Your task to perform on an android device: turn on wifi Image 0: 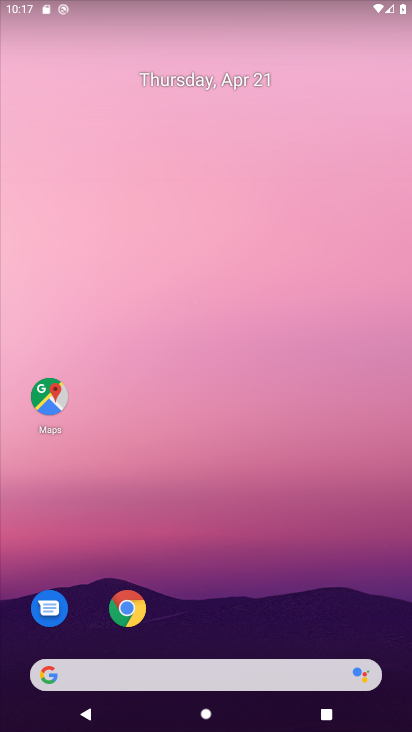
Step 0: drag from (274, 551) to (289, 133)
Your task to perform on an android device: turn on wifi Image 1: 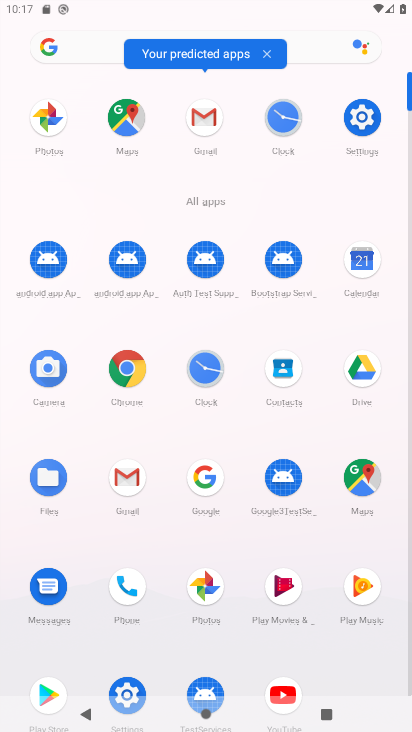
Step 1: click (359, 119)
Your task to perform on an android device: turn on wifi Image 2: 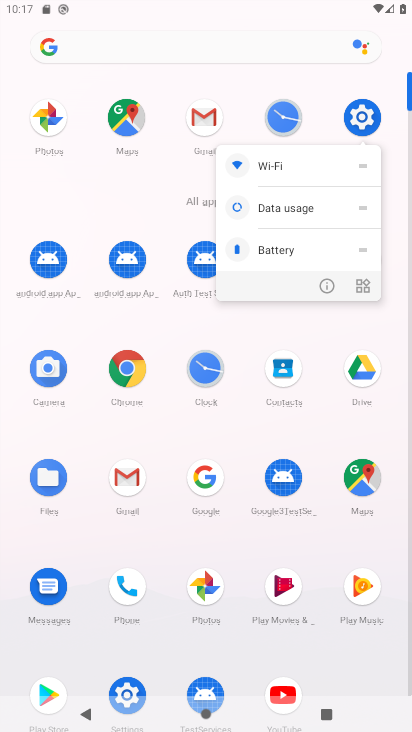
Step 2: click (358, 119)
Your task to perform on an android device: turn on wifi Image 3: 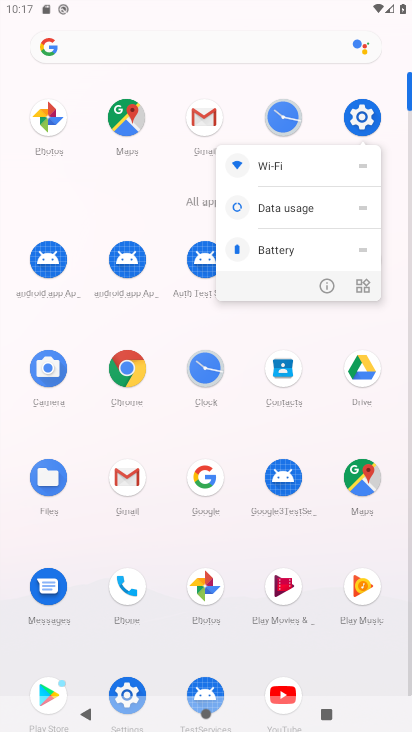
Step 3: click (358, 119)
Your task to perform on an android device: turn on wifi Image 4: 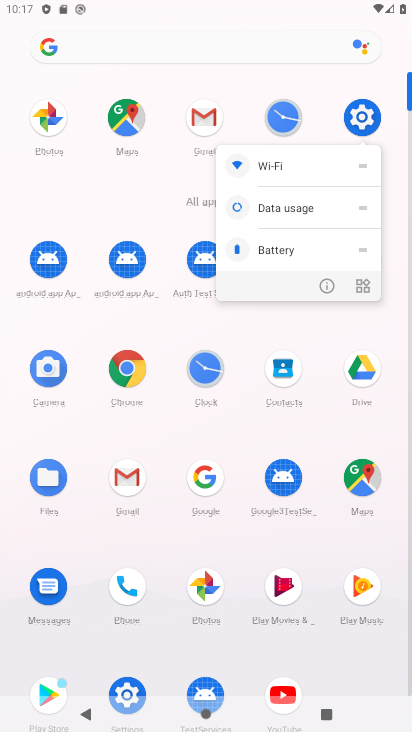
Step 4: click (353, 123)
Your task to perform on an android device: turn on wifi Image 5: 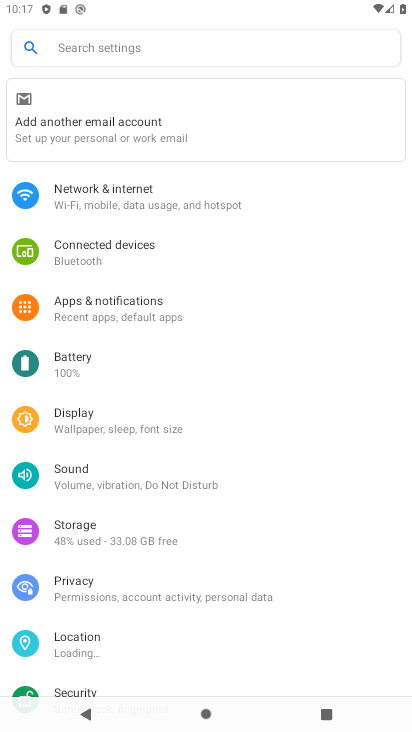
Step 5: click (191, 188)
Your task to perform on an android device: turn on wifi Image 6: 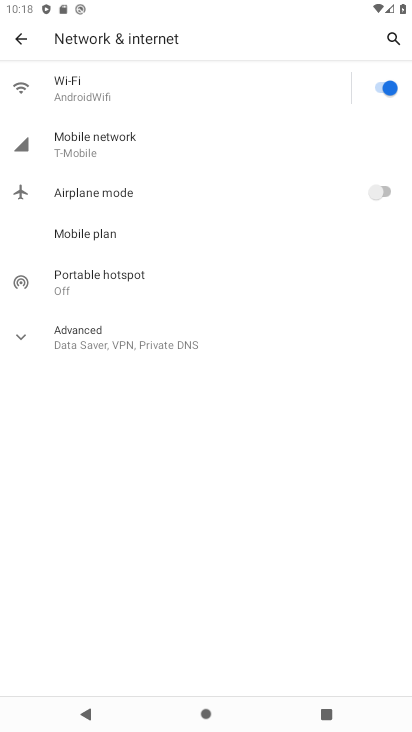
Step 6: task complete